Your task to perform on an android device: Open Youtube and go to the subscriptions tab Image 0: 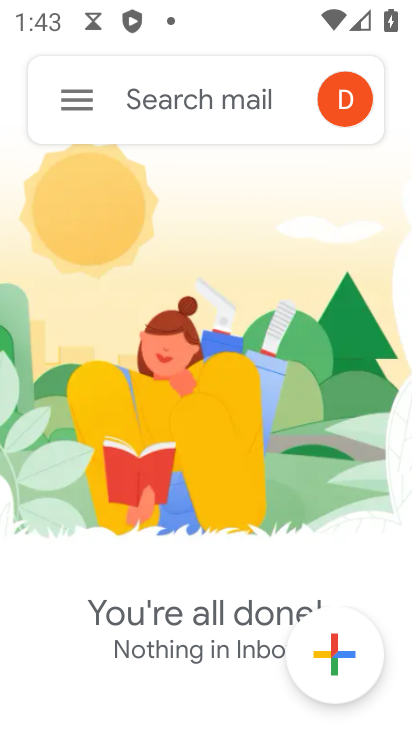
Step 0: press back button
Your task to perform on an android device: Open Youtube and go to the subscriptions tab Image 1: 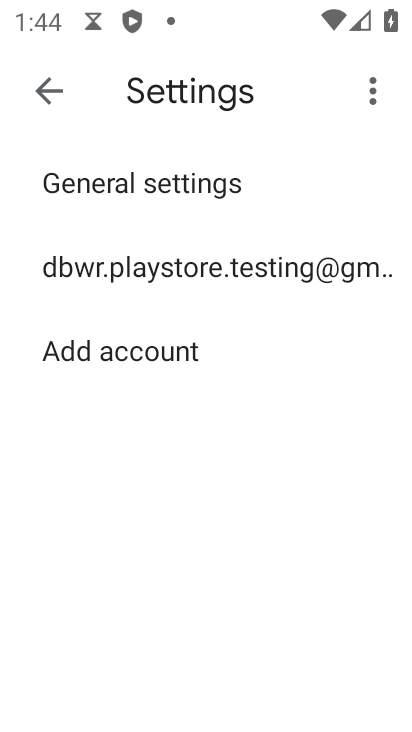
Step 1: press back button
Your task to perform on an android device: Open Youtube and go to the subscriptions tab Image 2: 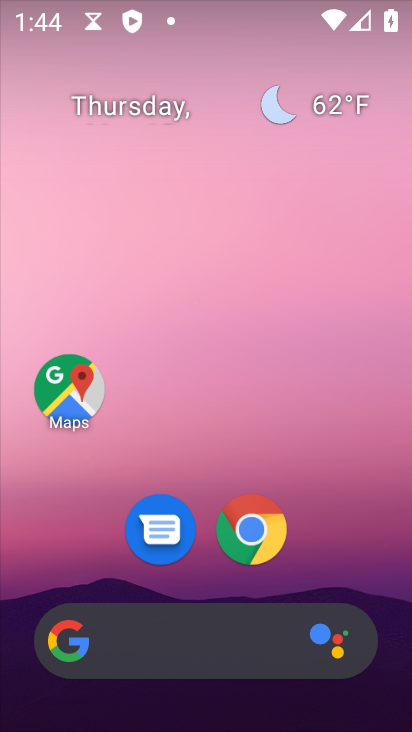
Step 2: drag from (349, 530) to (265, 118)
Your task to perform on an android device: Open Youtube and go to the subscriptions tab Image 3: 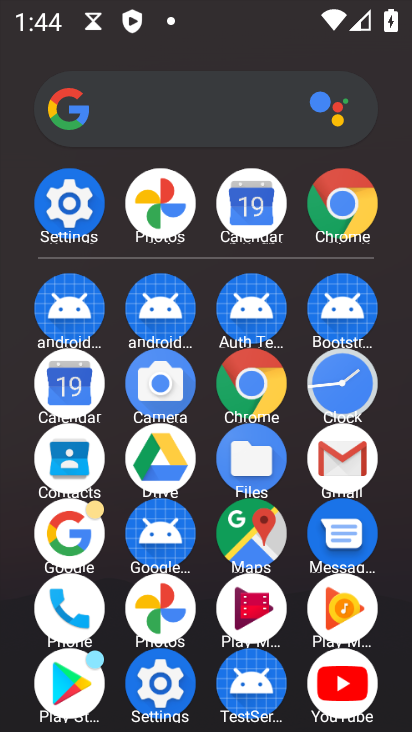
Step 3: drag from (291, 639) to (293, 296)
Your task to perform on an android device: Open Youtube and go to the subscriptions tab Image 4: 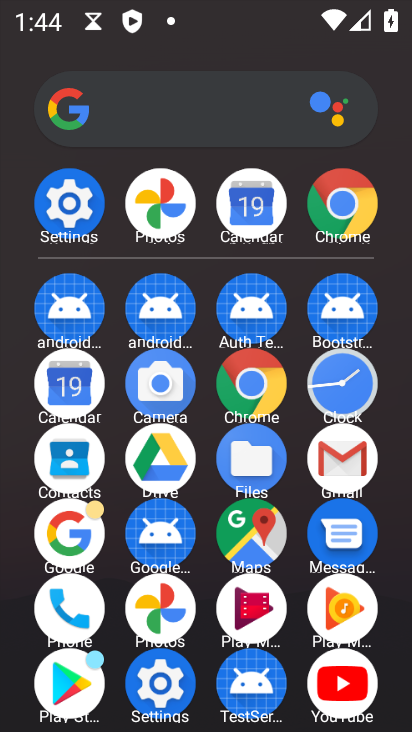
Step 4: click (340, 682)
Your task to perform on an android device: Open Youtube and go to the subscriptions tab Image 5: 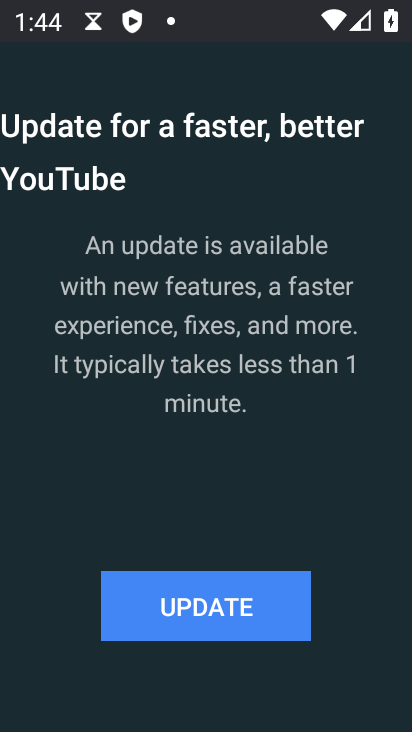
Step 5: click (189, 593)
Your task to perform on an android device: Open Youtube and go to the subscriptions tab Image 6: 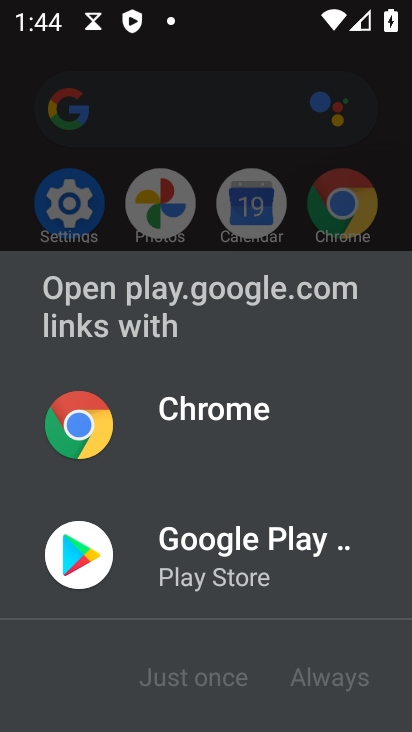
Step 6: click (220, 552)
Your task to perform on an android device: Open Youtube and go to the subscriptions tab Image 7: 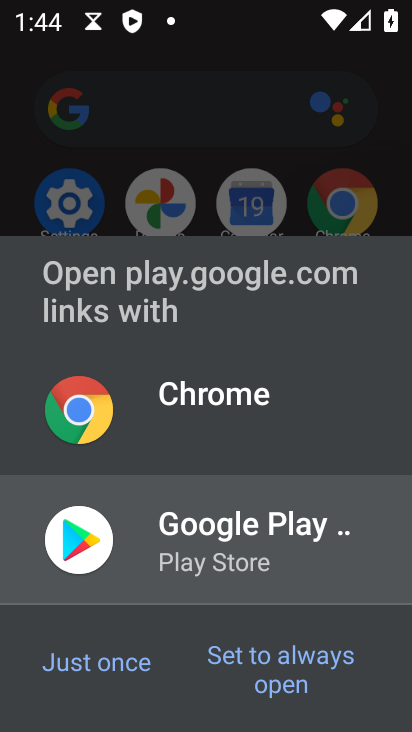
Step 7: click (109, 659)
Your task to perform on an android device: Open Youtube and go to the subscriptions tab Image 8: 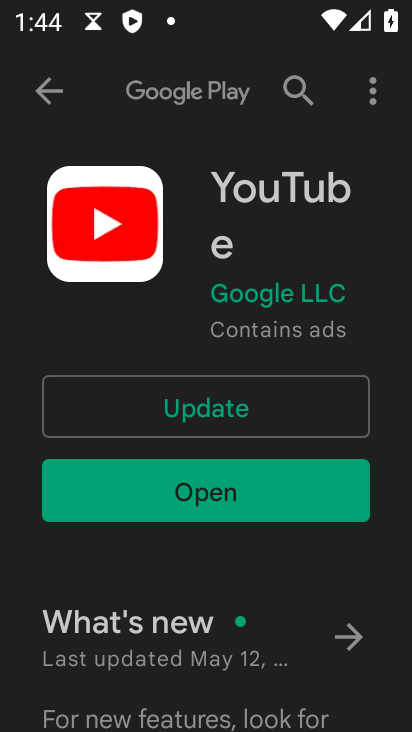
Step 8: click (194, 405)
Your task to perform on an android device: Open Youtube and go to the subscriptions tab Image 9: 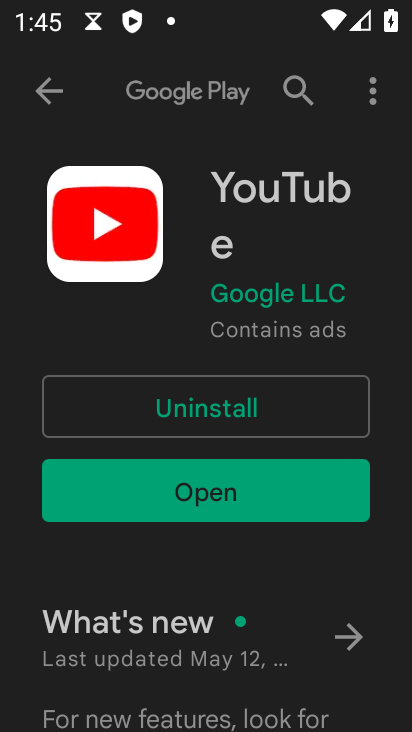
Step 9: click (234, 507)
Your task to perform on an android device: Open Youtube and go to the subscriptions tab Image 10: 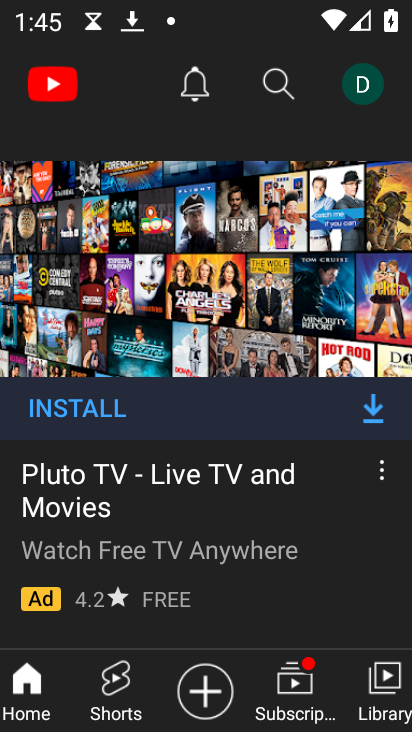
Step 10: click (305, 697)
Your task to perform on an android device: Open Youtube and go to the subscriptions tab Image 11: 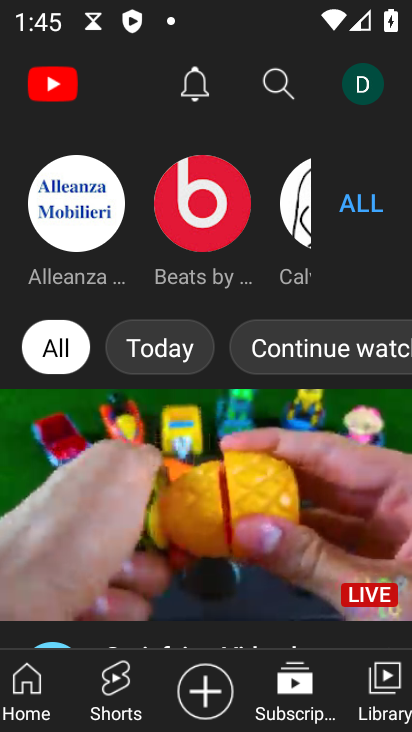
Step 11: task complete